Your task to perform on an android device: Open settings on Google Maps Image 0: 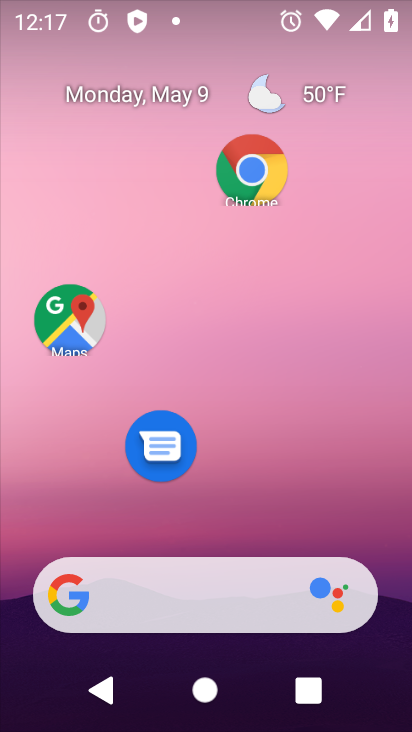
Step 0: drag from (247, 500) to (263, 40)
Your task to perform on an android device: Open settings on Google Maps Image 1: 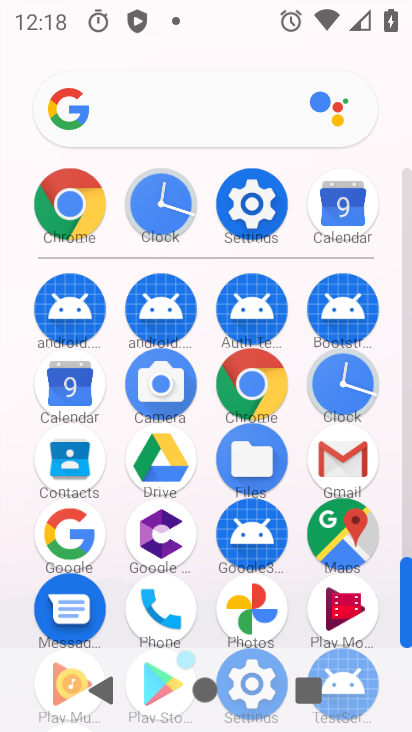
Step 1: click (350, 532)
Your task to perform on an android device: Open settings on Google Maps Image 2: 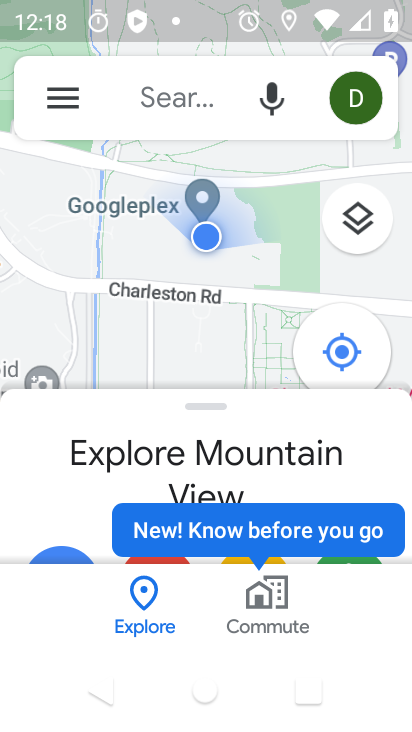
Step 2: click (57, 108)
Your task to perform on an android device: Open settings on Google Maps Image 3: 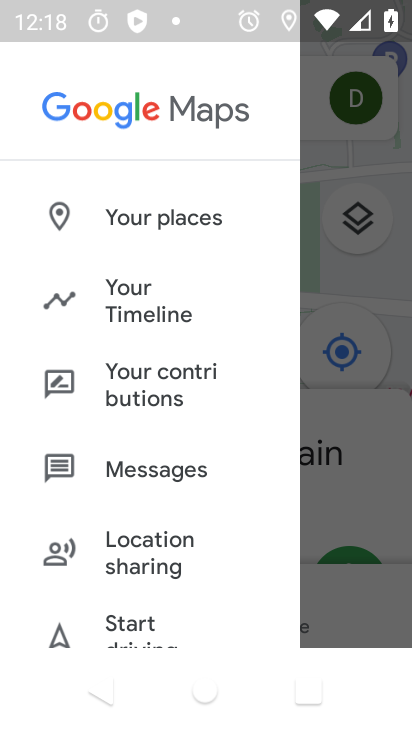
Step 3: drag from (167, 566) to (168, 331)
Your task to perform on an android device: Open settings on Google Maps Image 4: 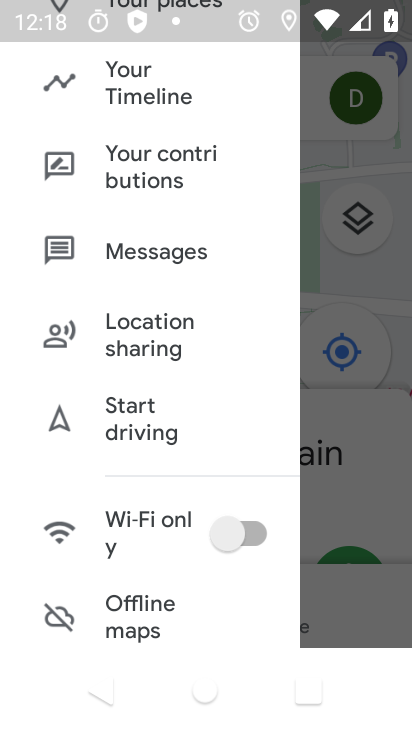
Step 4: drag from (181, 556) to (173, 285)
Your task to perform on an android device: Open settings on Google Maps Image 5: 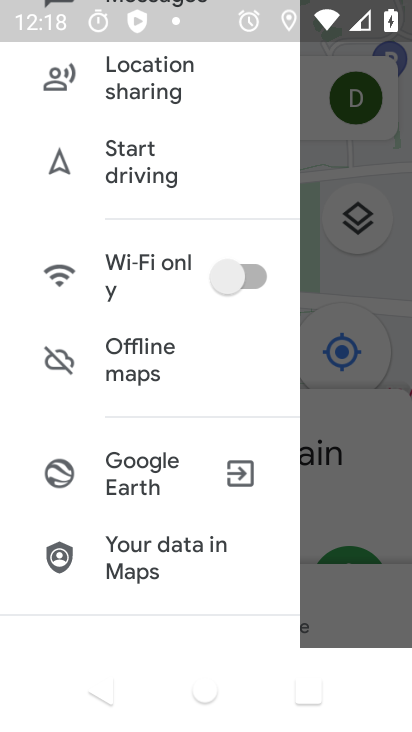
Step 5: drag from (112, 528) to (205, 222)
Your task to perform on an android device: Open settings on Google Maps Image 6: 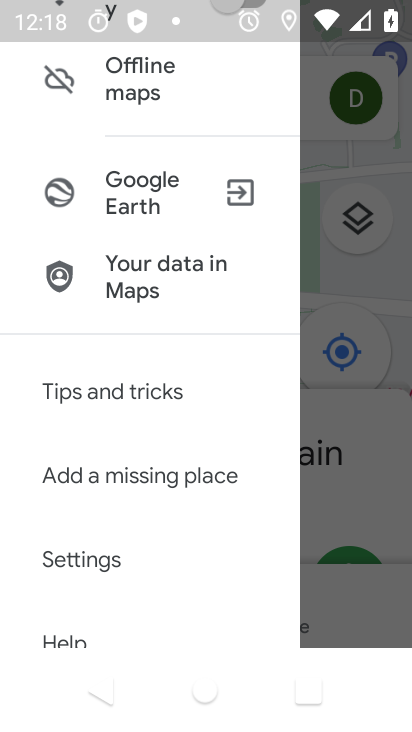
Step 6: click (160, 558)
Your task to perform on an android device: Open settings on Google Maps Image 7: 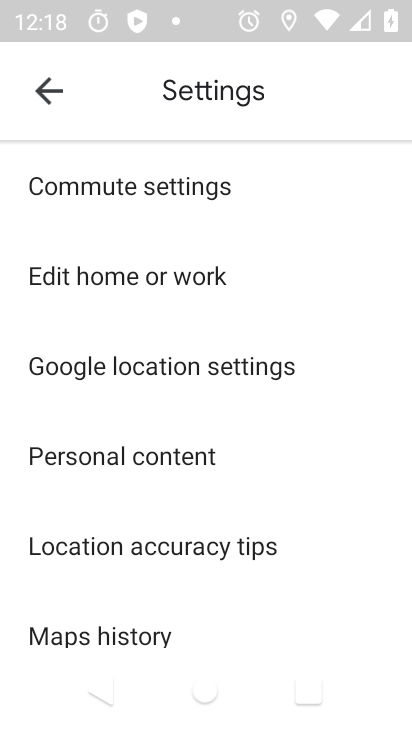
Step 7: task complete